Your task to perform on an android device: move an email to a new category in the gmail app Image 0: 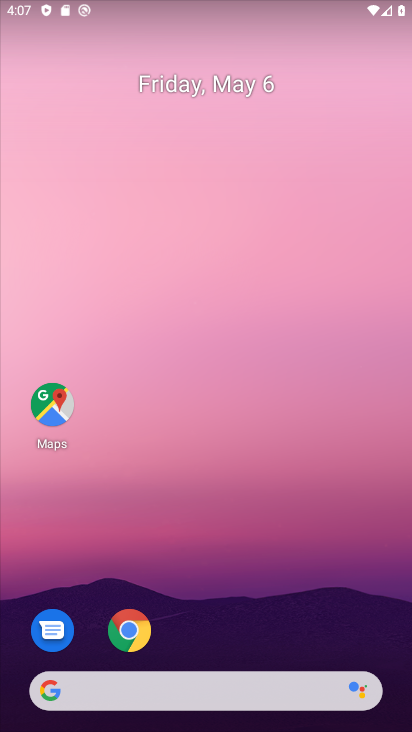
Step 0: drag from (243, 593) to (243, 4)
Your task to perform on an android device: move an email to a new category in the gmail app Image 1: 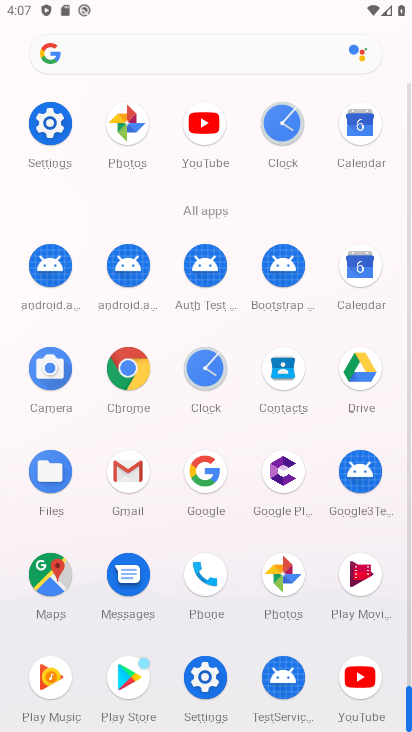
Step 1: click (132, 491)
Your task to perform on an android device: move an email to a new category in the gmail app Image 2: 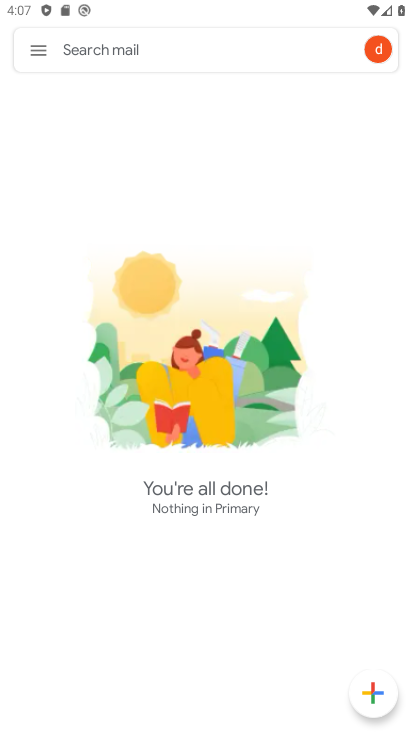
Step 2: click (40, 55)
Your task to perform on an android device: move an email to a new category in the gmail app Image 3: 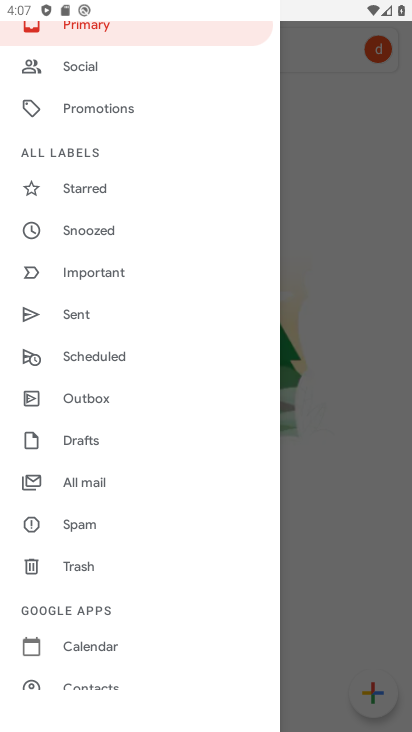
Step 3: click (109, 487)
Your task to perform on an android device: move an email to a new category in the gmail app Image 4: 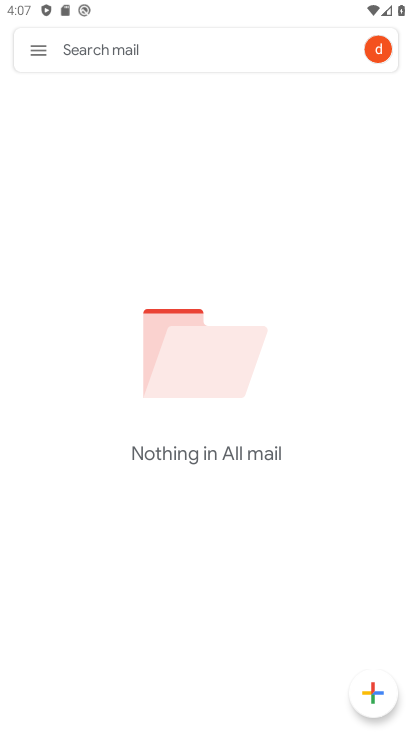
Step 4: task complete